Your task to perform on an android device: What's the weather today? Image 0: 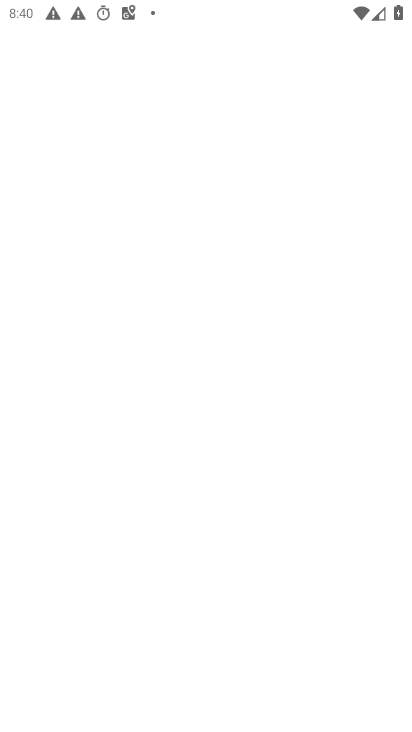
Step 0: press home button
Your task to perform on an android device: What's the weather today? Image 1: 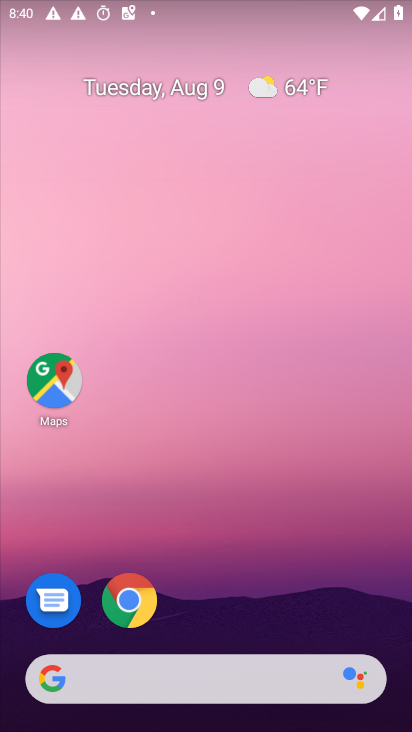
Step 1: click (57, 691)
Your task to perform on an android device: What's the weather today? Image 2: 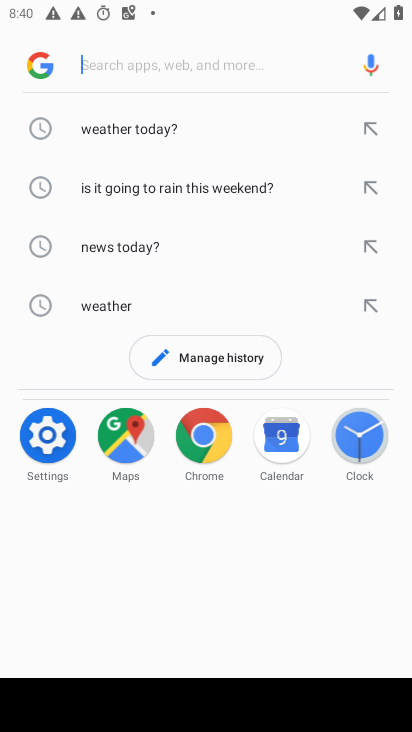
Step 2: click (128, 134)
Your task to perform on an android device: What's the weather today? Image 3: 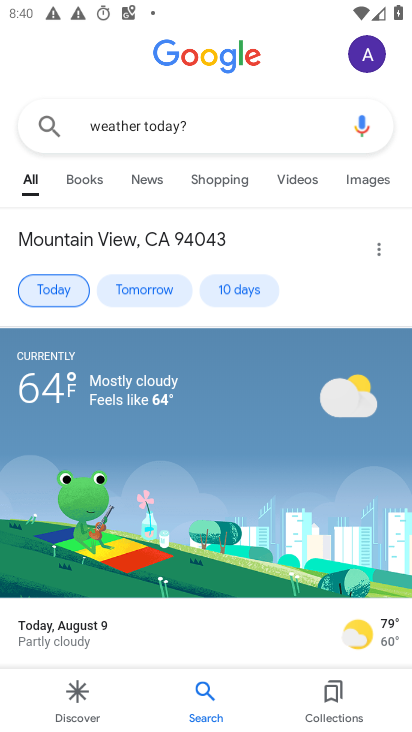
Step 3: task complete